Your task to perform on an android device: Go to Android settings Image 0: 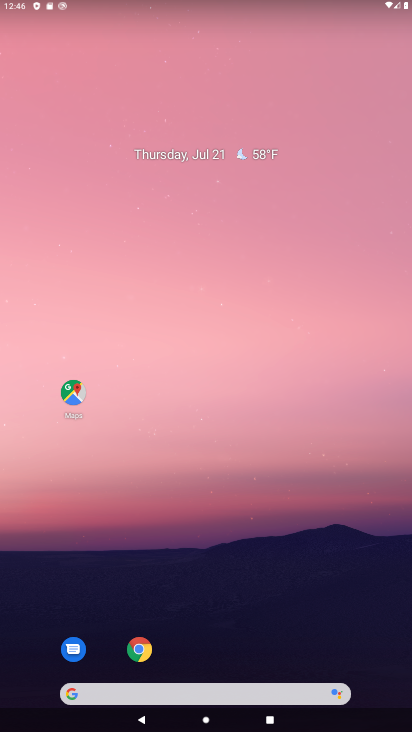
Step 0: drag from (305, 645) to (249, 30)
Your task to perform on an android device: Go to Android settings Image 1: 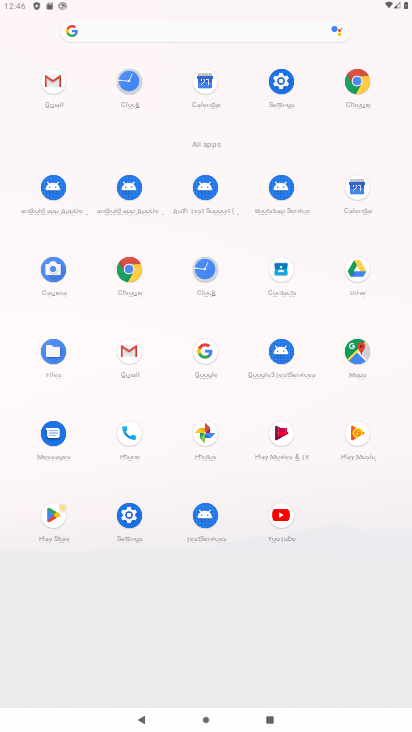
Step 1: click (285, 87)
Your task to perform on an android device: Go to Android settings Image 2: 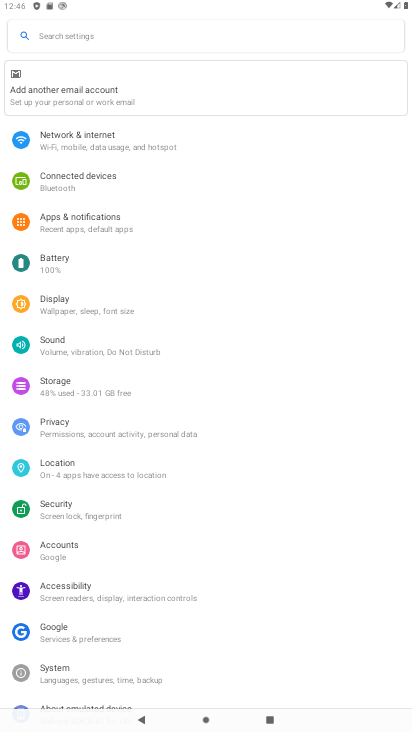
Step 2: task complete